Your task to perform on an android device: Open Amazon Image 0: 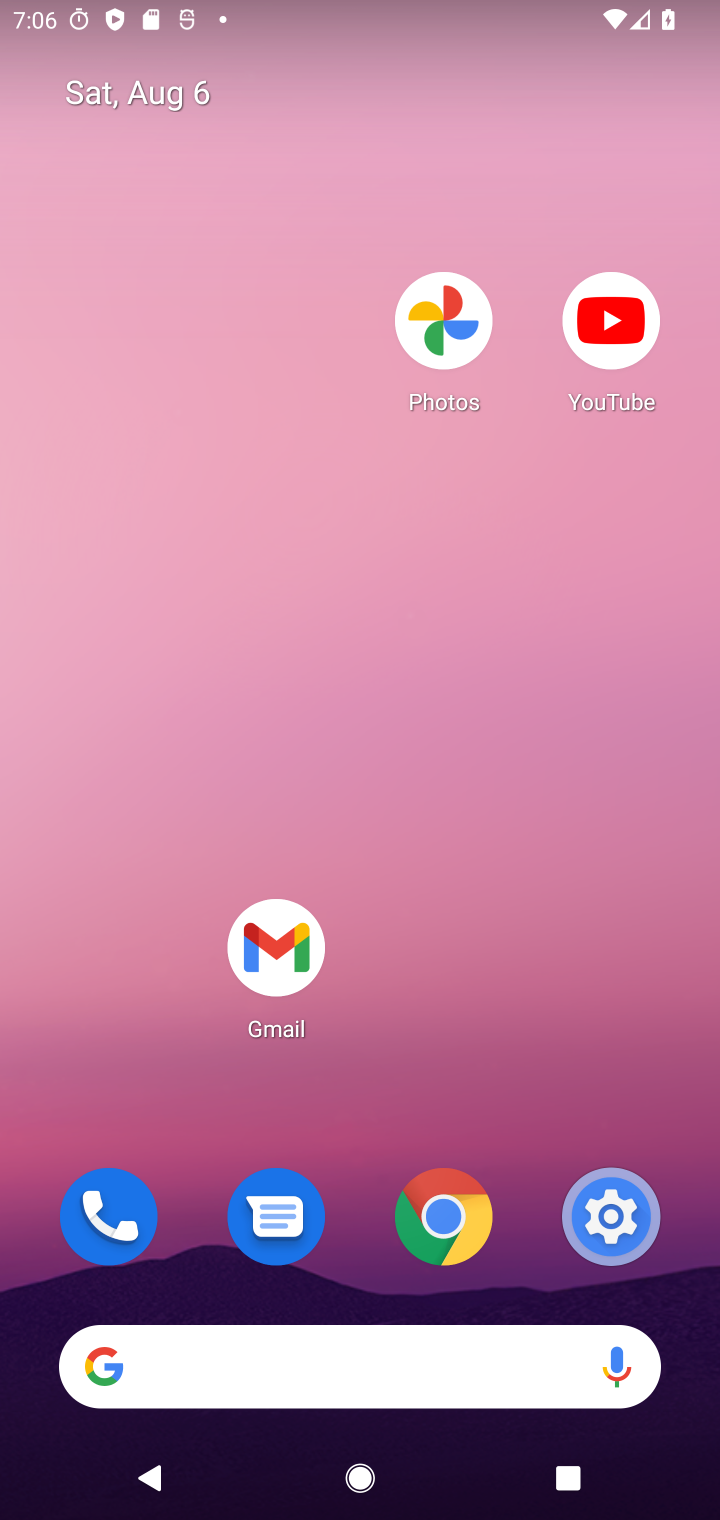
Step 0: drag from (454, 1090) to (47, 925)
Your task to perform on an android device: Open Amazon Image 1: 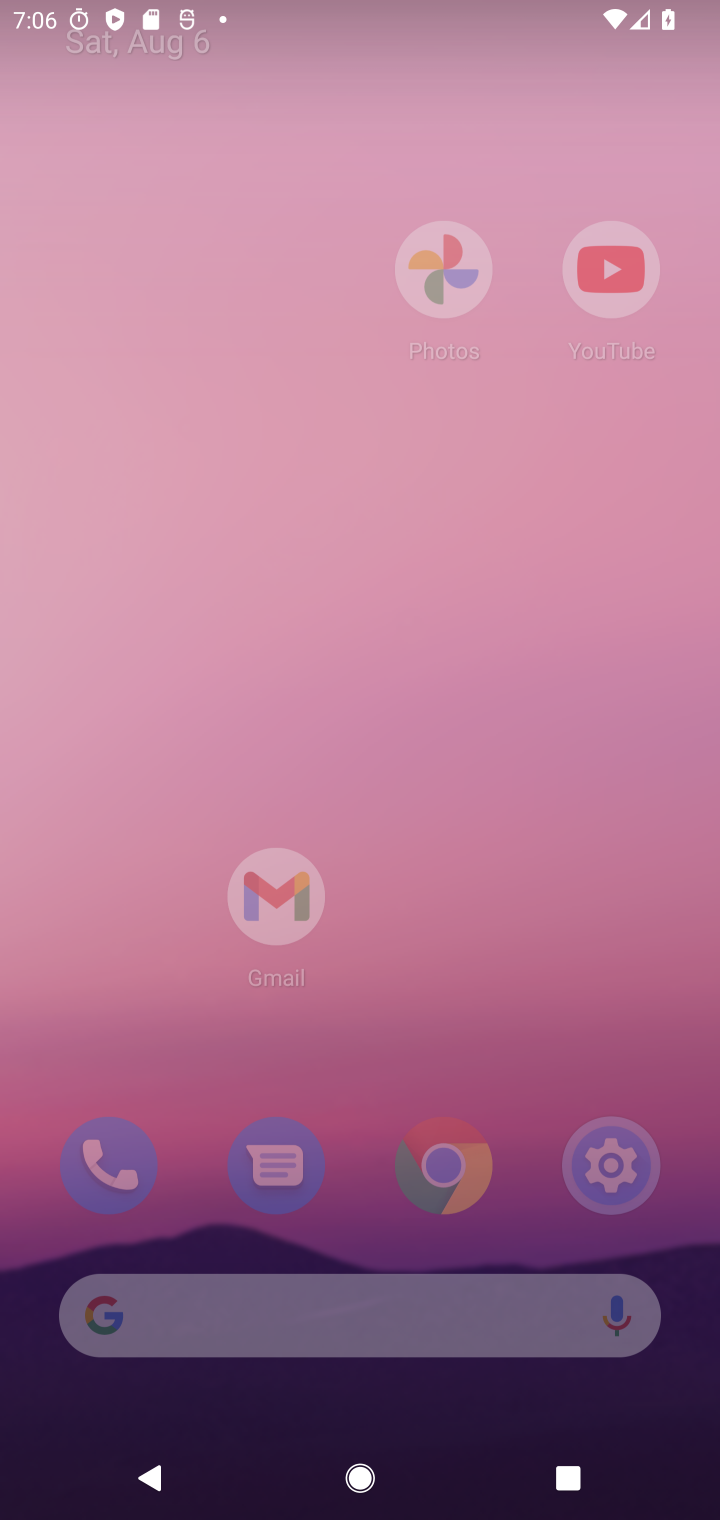
Step 1: click (442, 505)
Your task to perform on an android device: Open Amazon Image 2: 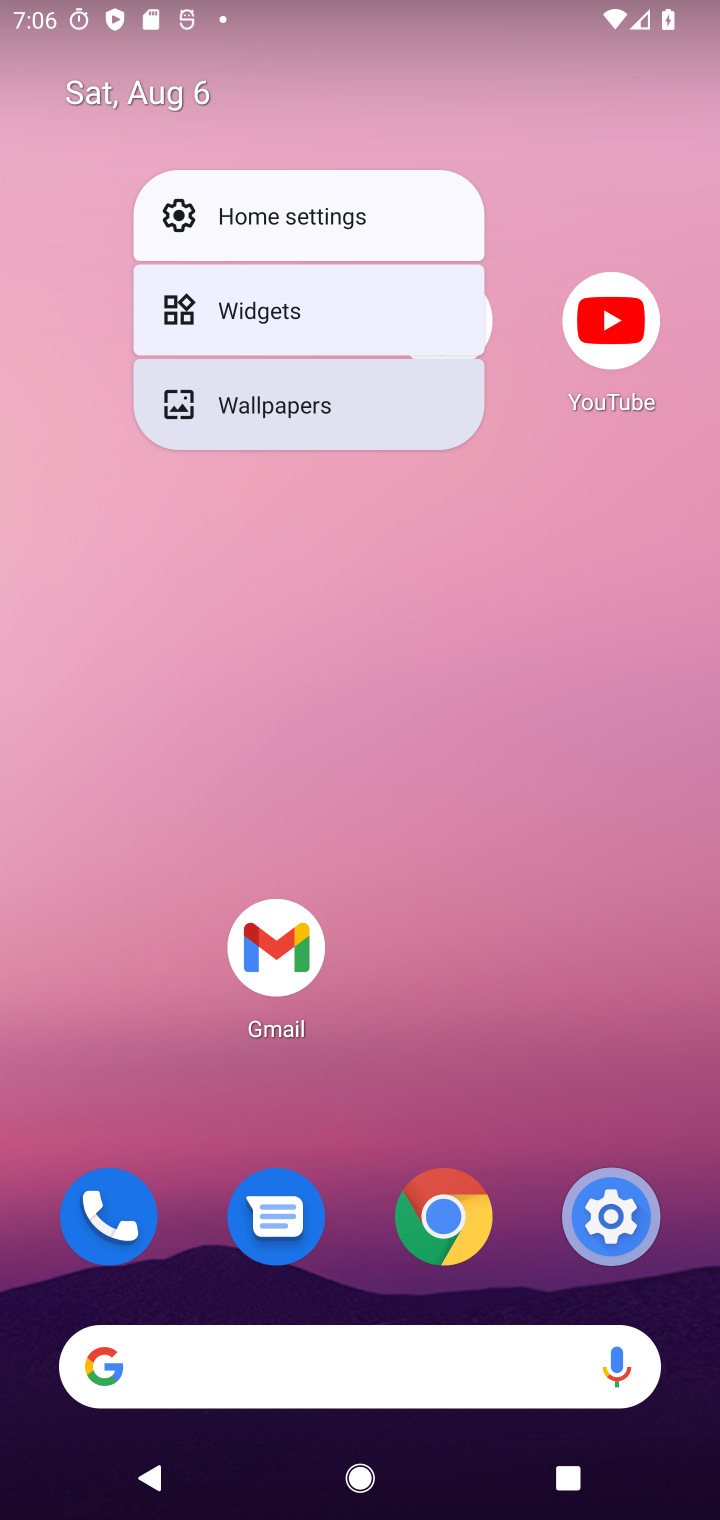
Step 2: click (432, 1232)
Your task to perform on an android device: Open Amazon Image 3: 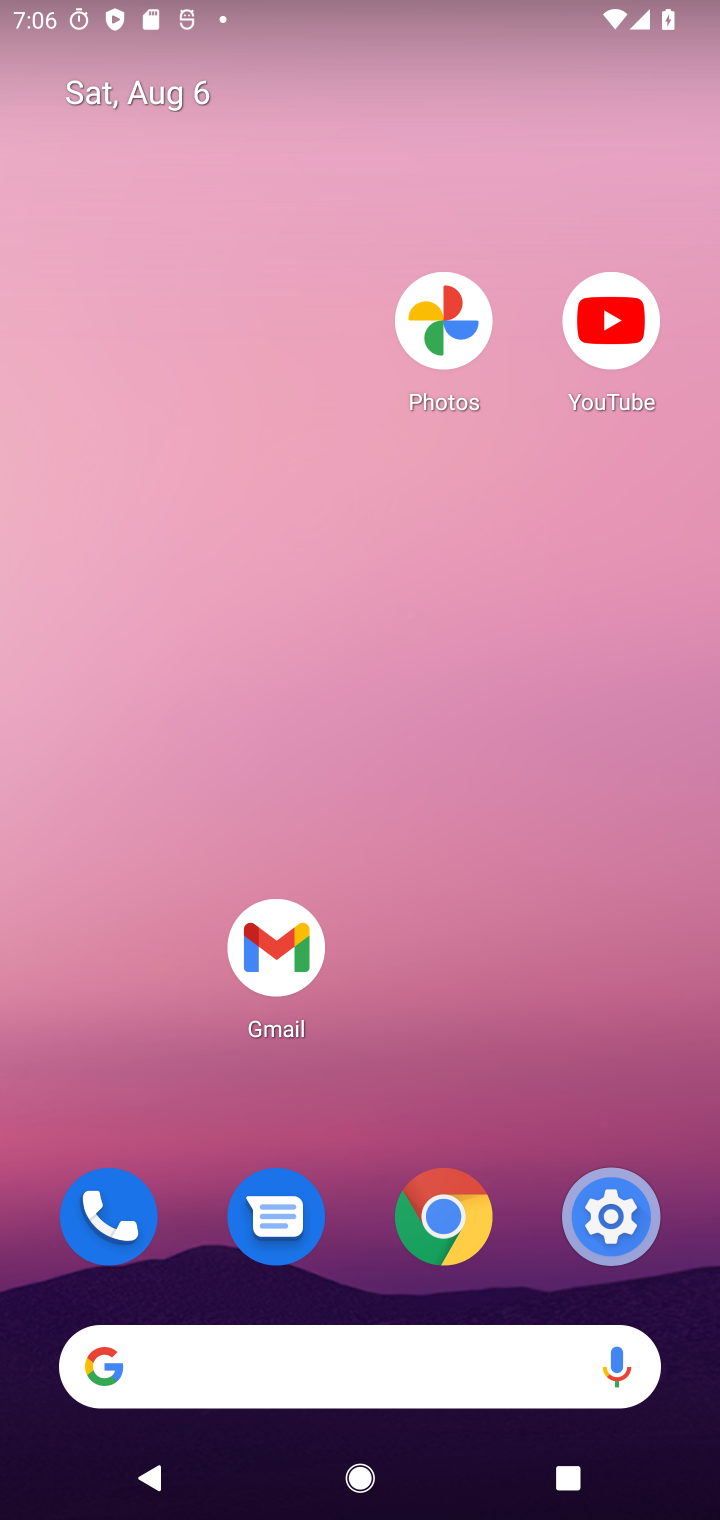
Step 3: click (447, 1214)
Your task to perform on an android device: Open Amazon Image 4: 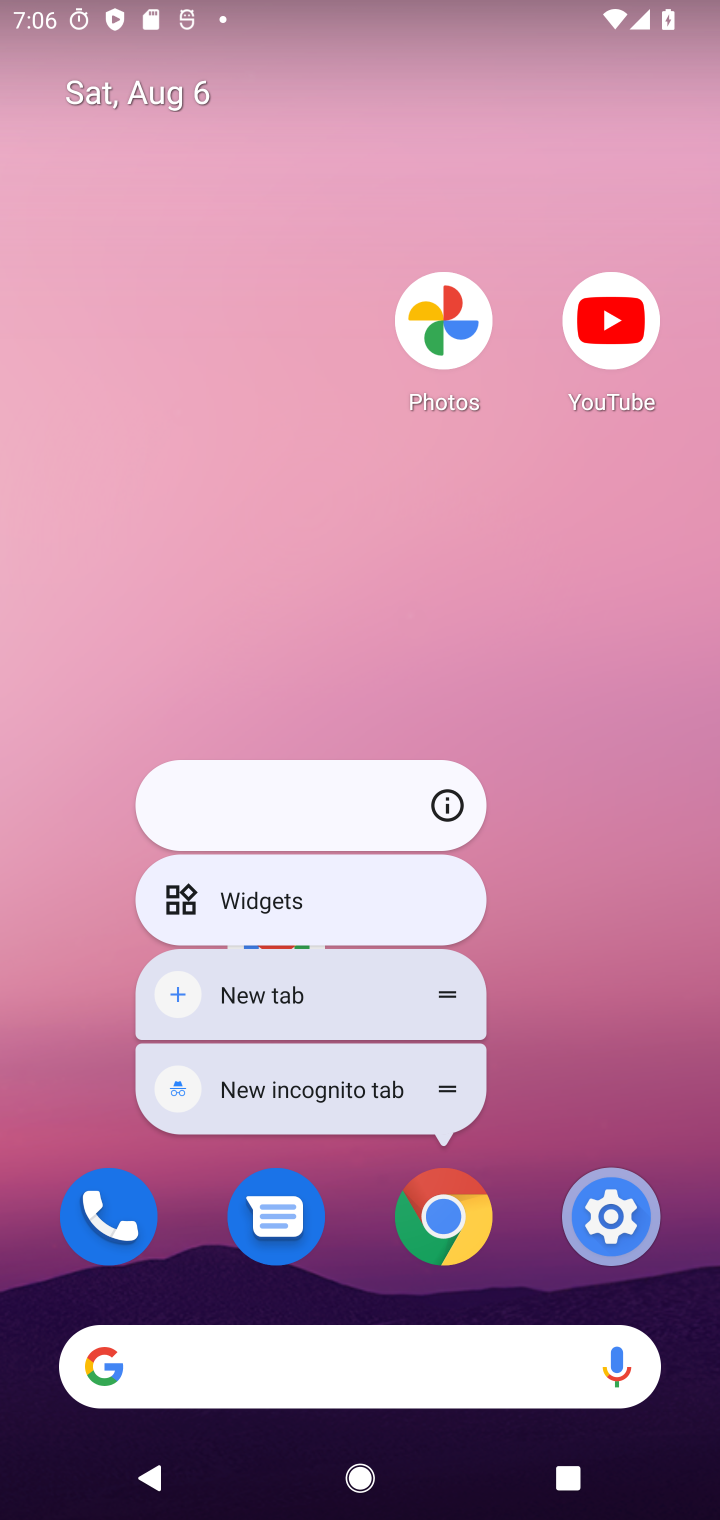
Step 4: click (436, 1223)
Your task to perform on an android device: Open Amazon Image 5: 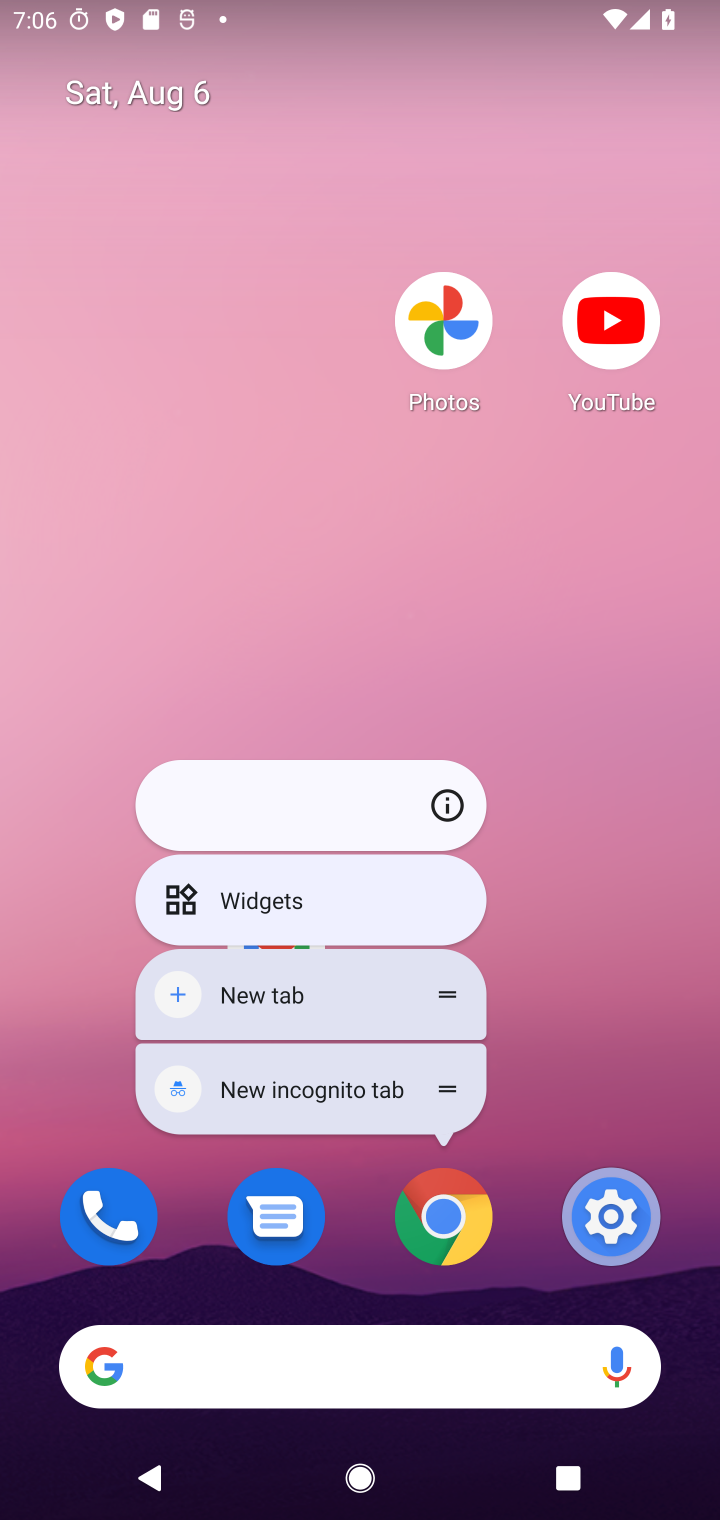
Step 5: click (438, 1217)
Your task to perform on an android device: Open Amazon Image 6: 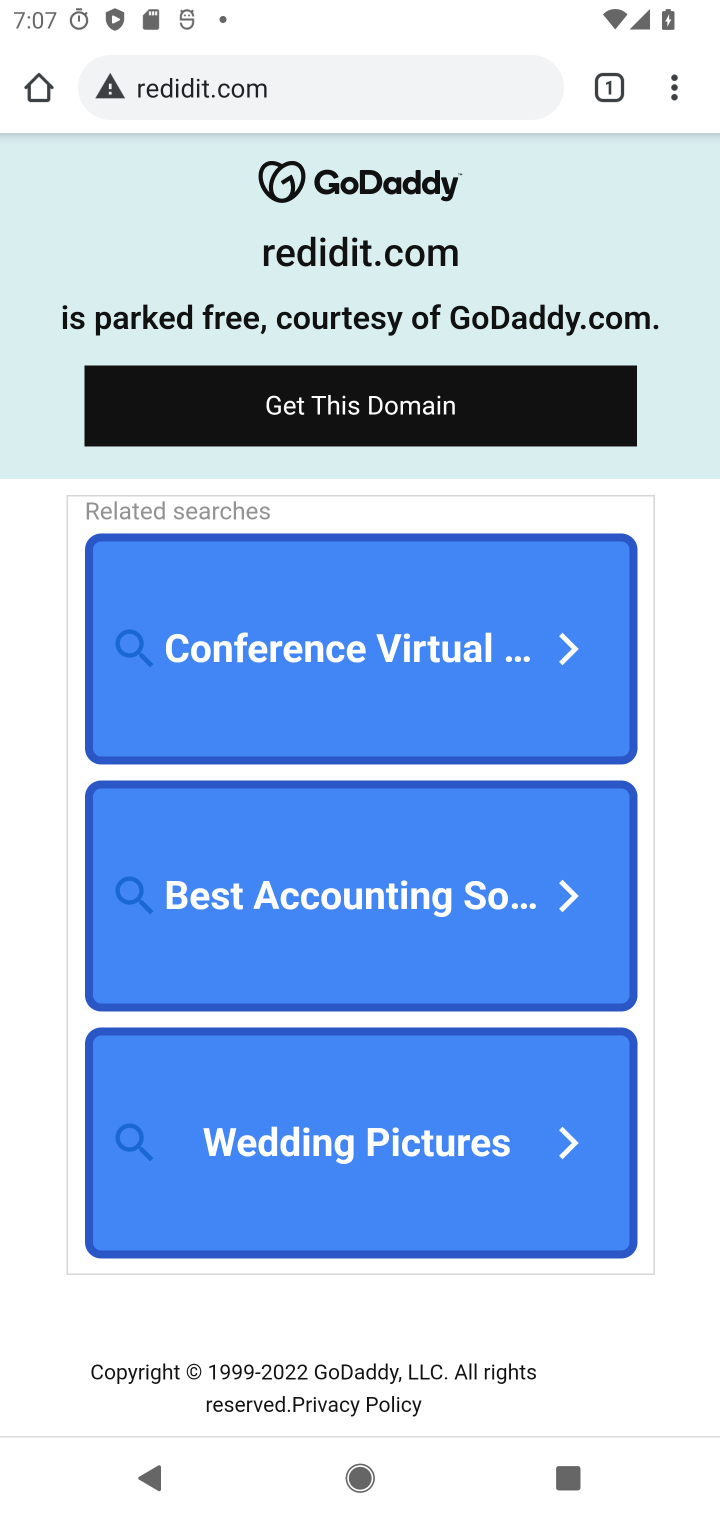
Step 6: click (351, 70)
Your task to perform on an android device: Open Amazon Image 7: 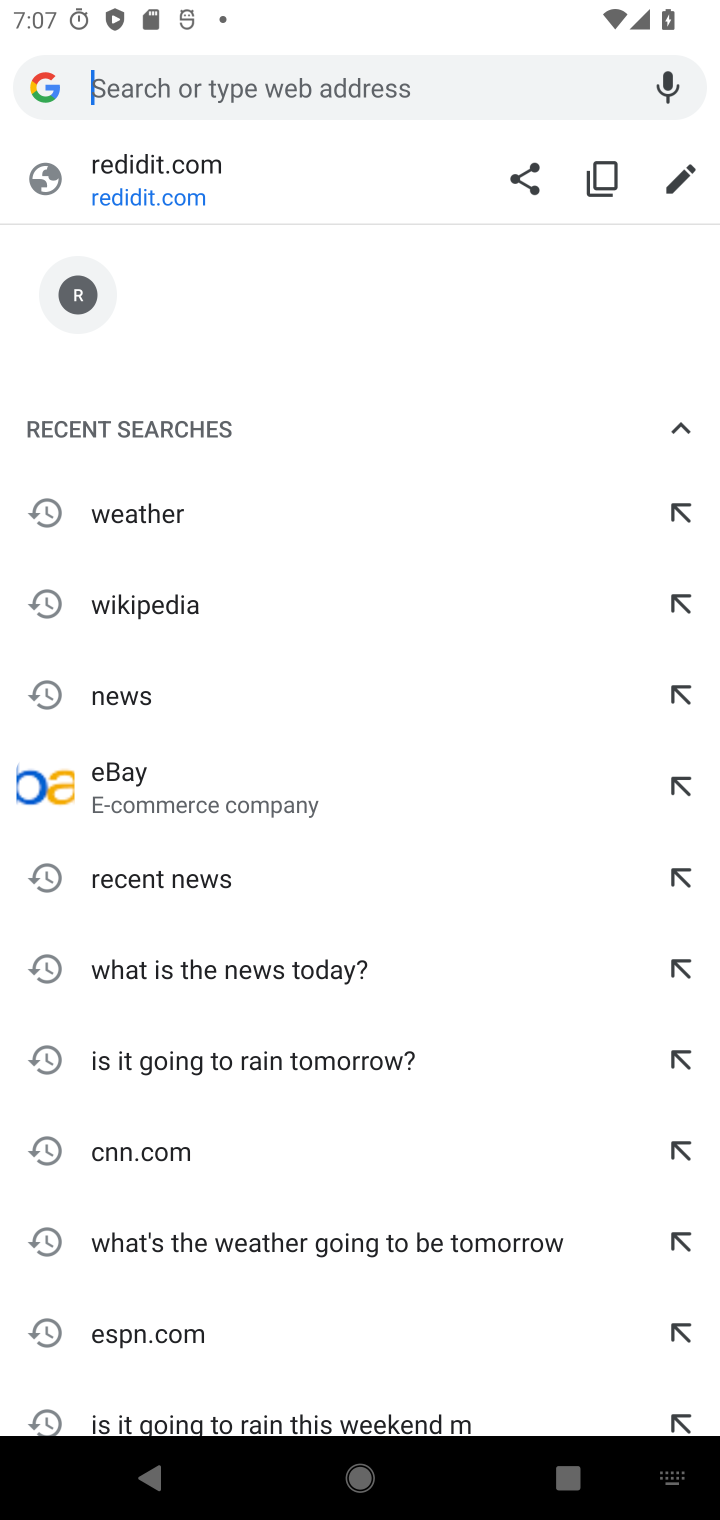
Step 7: type "amazon"
Your task to perform on an android device: Open Amazon Image 8: 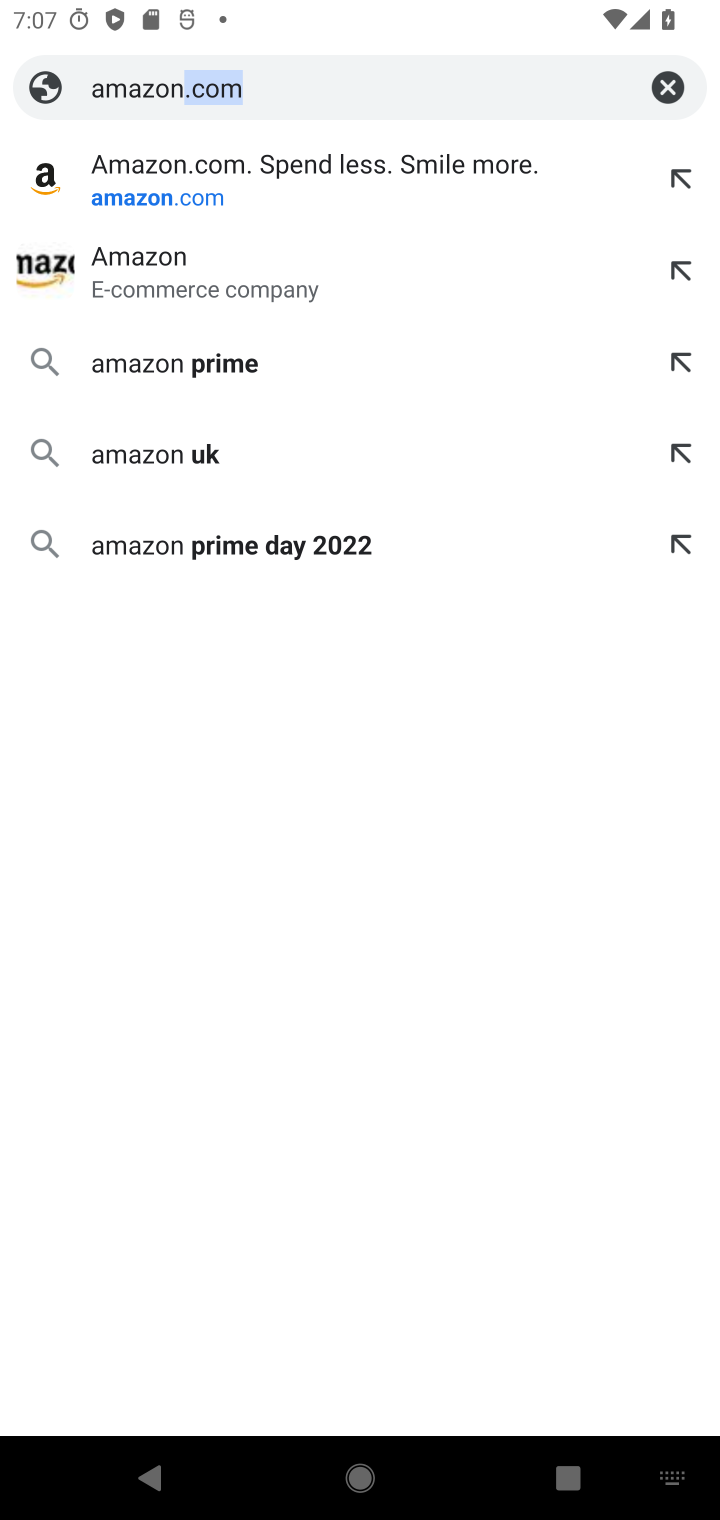
Step 8: click (94, 289)
Your task to perform on an android device: Open Amazon Image 9: 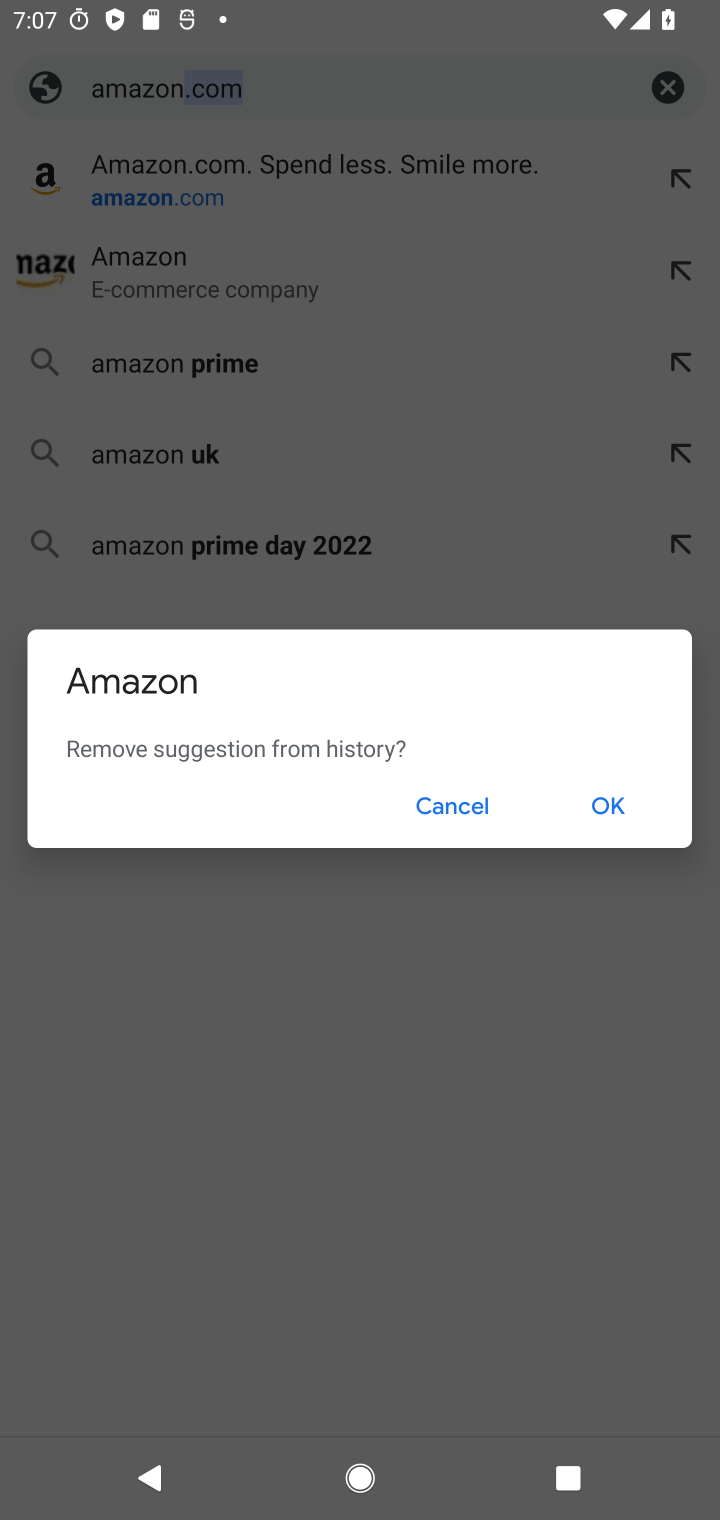
Step 9: click (427, 800)
Your task to perform on an android device: Open Amazon Image 10: 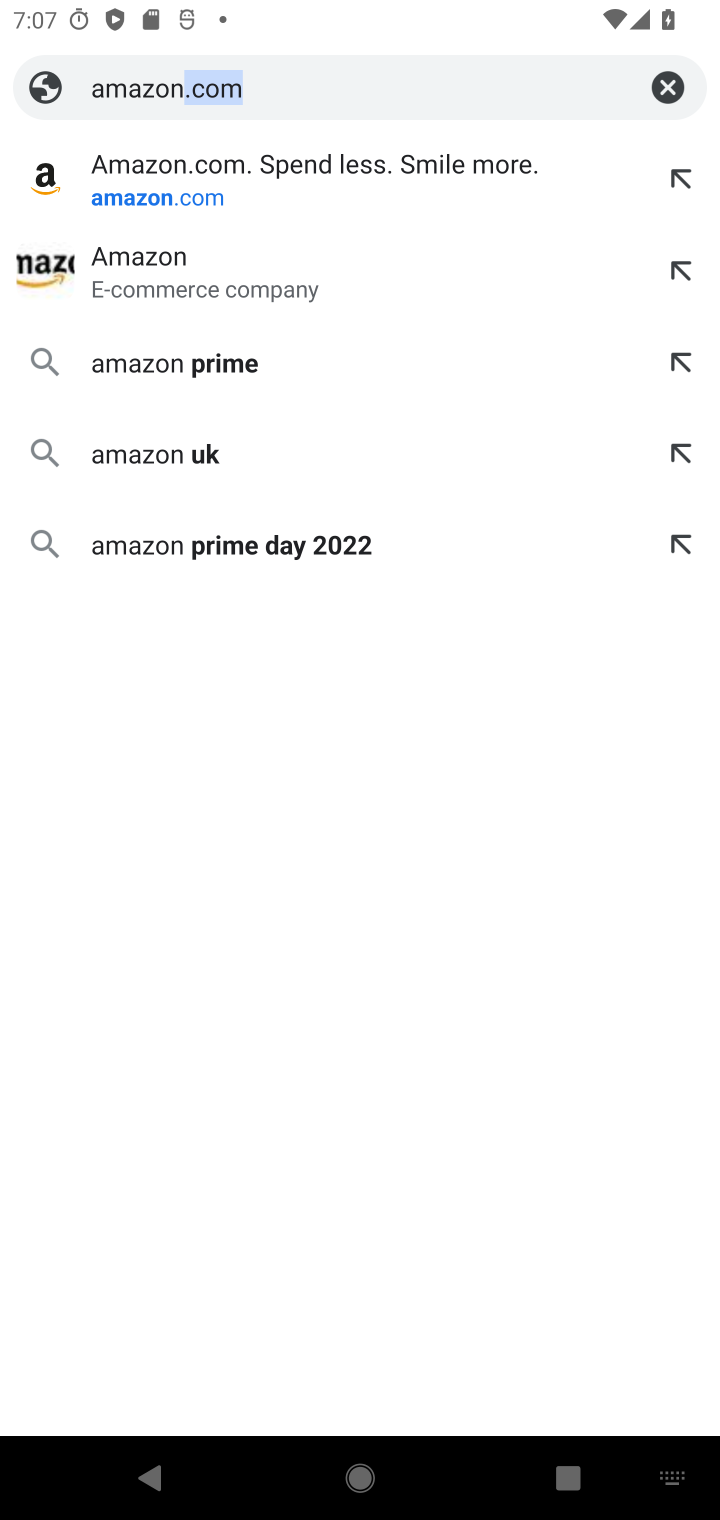
Step 10: click (178, 280)
Your task to perform on an android device: Open Amazon Image 11: 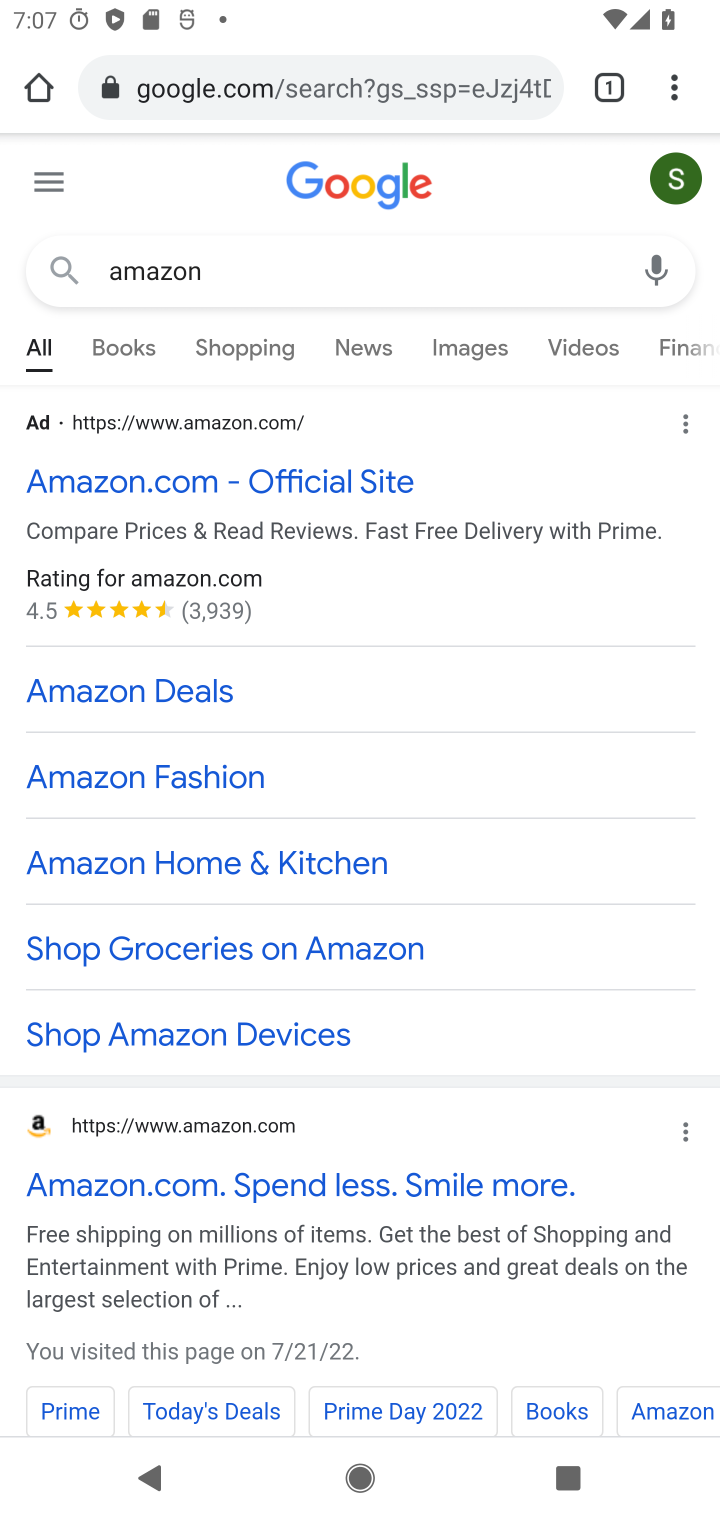
Step 11: click (211, 1193)
Your task to perform on an android device: Open Amazon Image 12: 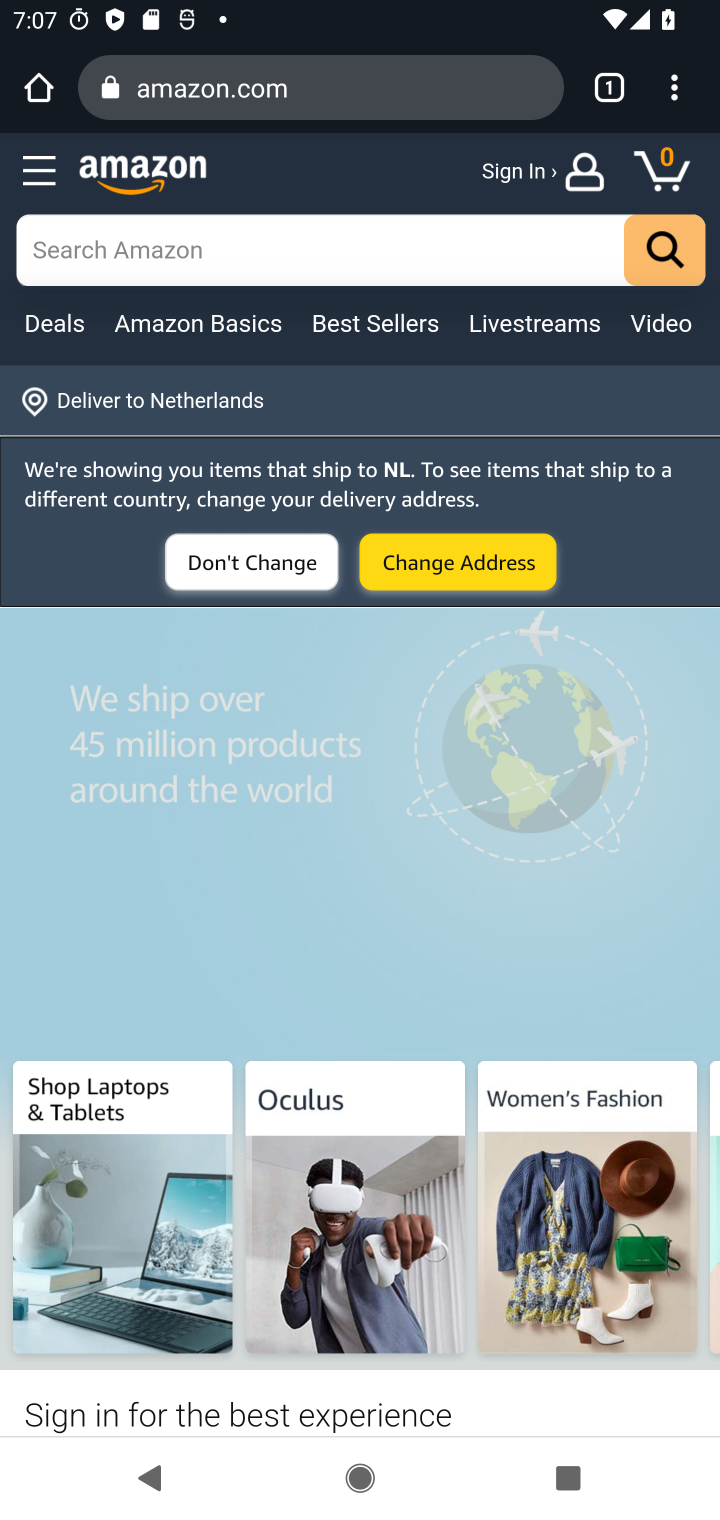
Step 12: task complete